Your task to perform on an android device: turn off wifi Image 0: 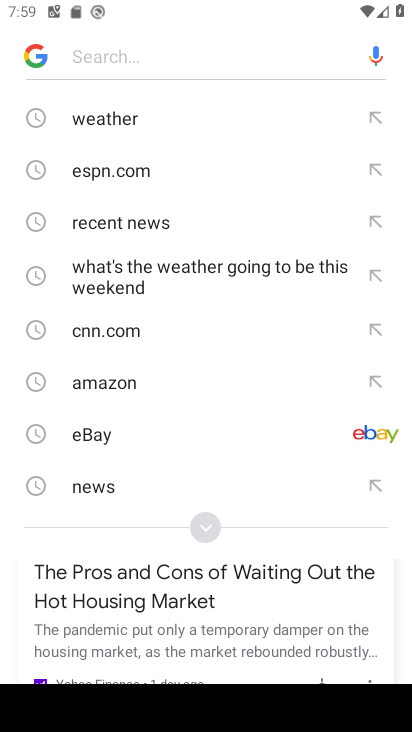
Step 0: press home button
Your task to perform on an android device: turn off wifi Image 1: 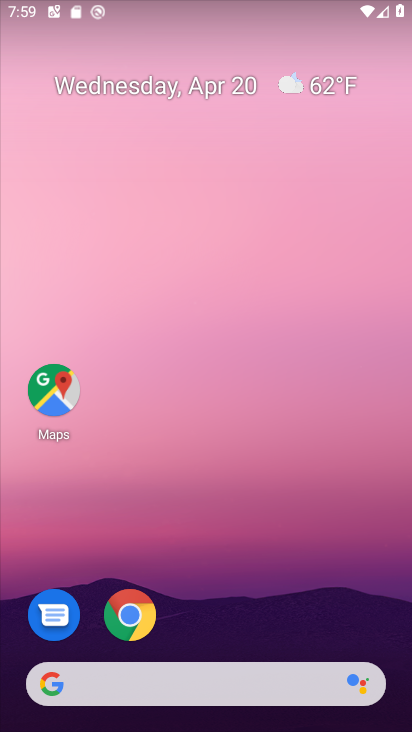
Step 1: drag from (173, 623) to (226, 34)
Your task to perform on an android device: turn off wifi Image 2: 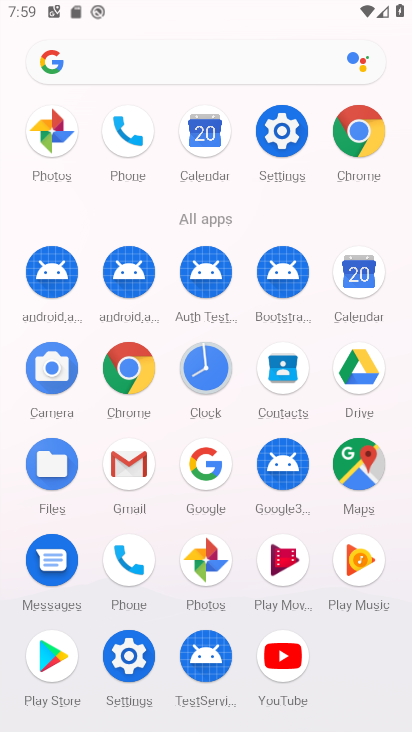
Step 2: click (287, 134)
Your task to perform on an android device: turn off wifi Image 3: 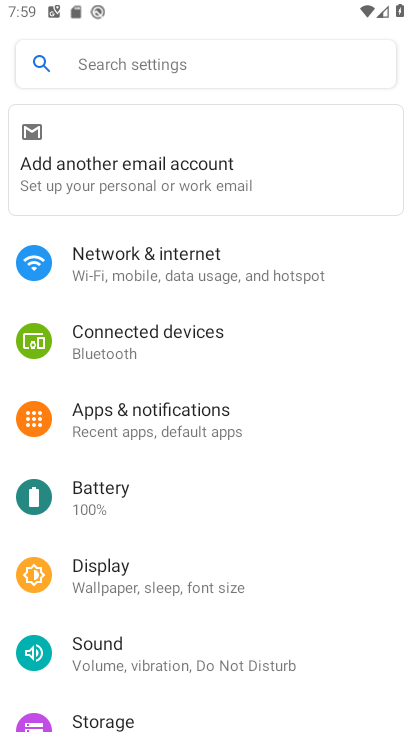
Step 3: click (167, 278)
Your task to perform on an android device: turn off wifi Image 4: 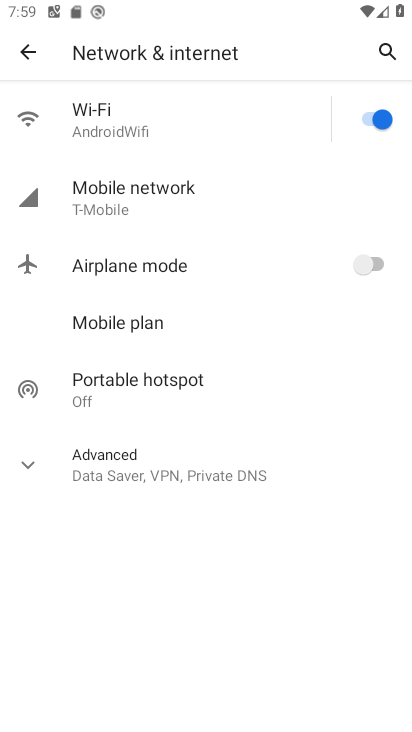
Step 4: click (361, 113)
Your task to perform on an android device: turn off wifi Image 5: 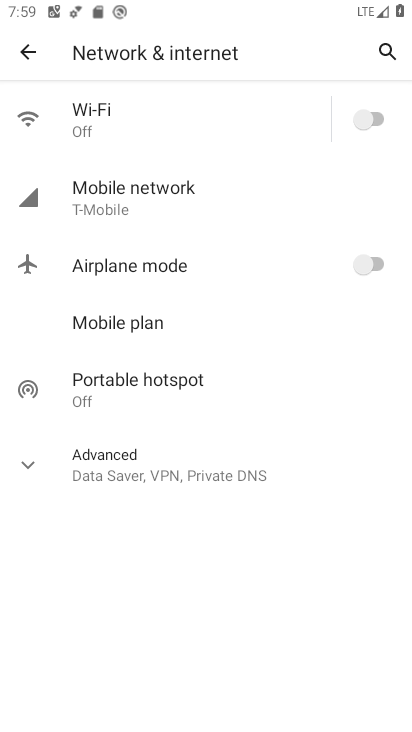
Step 5: task complete